Your task to perform on an android device: turn vacation reply on in the gmail app Image 0: 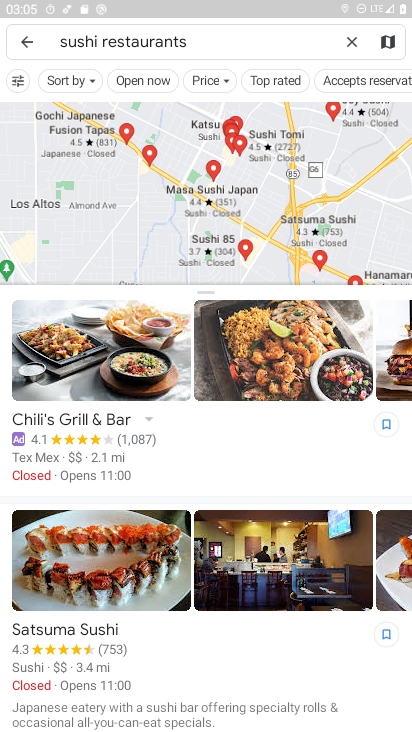
Step 0: press home button
Your task to perform on an android device: turn vacation reply on in the gmail app Image 1: 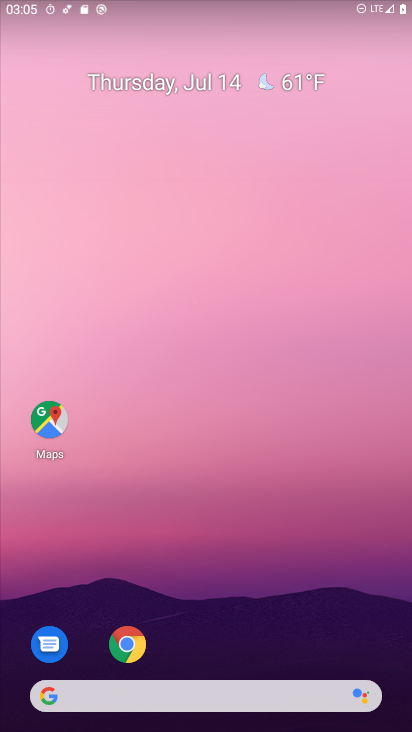
Step 1: drag from (193, 193) to (177, 156)
Your task to perform on an android device: turn vacation reply on in the gmail app Image 2: 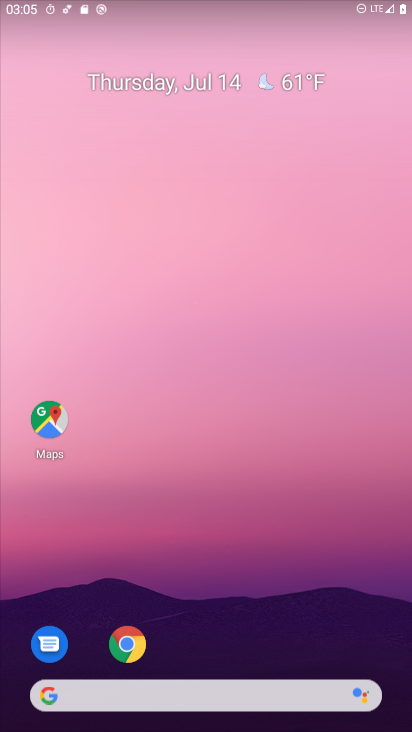
Step 2: drag from (289, 580) to (282, 52)
Your task to perform on an android device: turn vacation reply on in the gmail app Image 3: 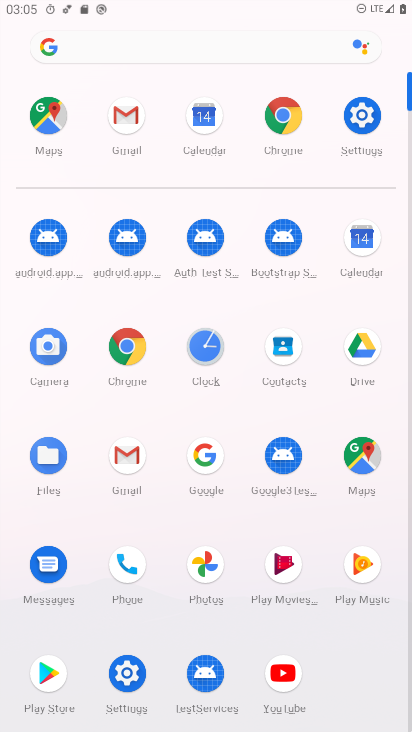
Step 3: click (119, 114)
Your task to perform on an android device: turn vacation reply on in the gmail app Image 4: 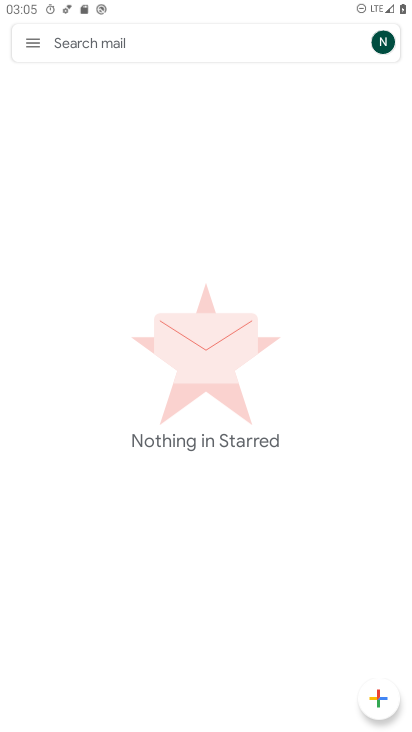
Step 4: click (24, 44)
Your task to perform on an android device: turn vacation reply on in the gmail app Image 5: 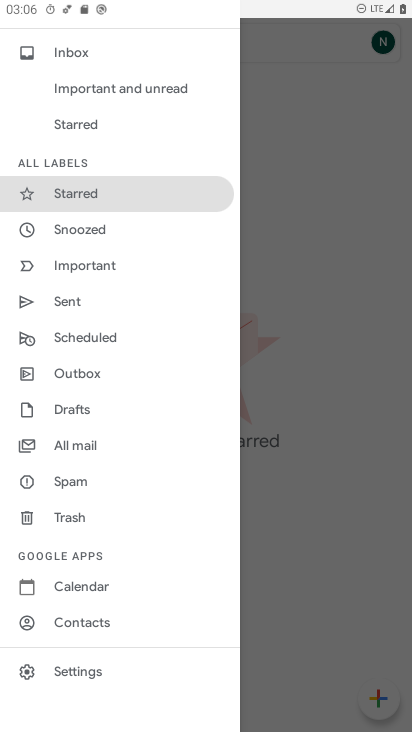
Step 5: click (90, 674)
Your task to perform on an android device: turn vacation reply on in the gmail app Image 6: 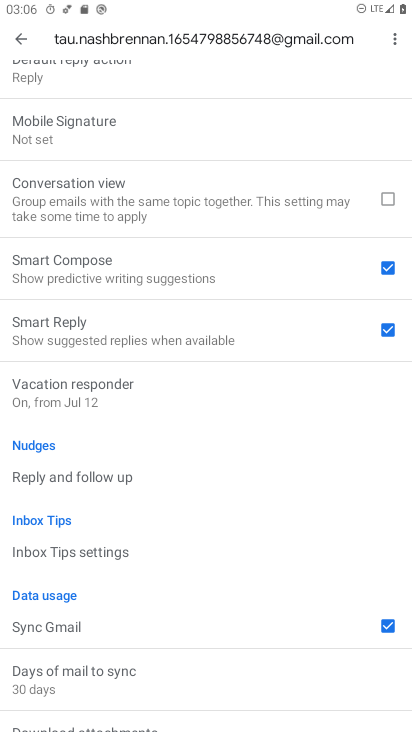
Step 6: drag from (202, 115) to (237, 593)
Your task to perform on an android device: turn vacation reply on in the gmail app Image 7: 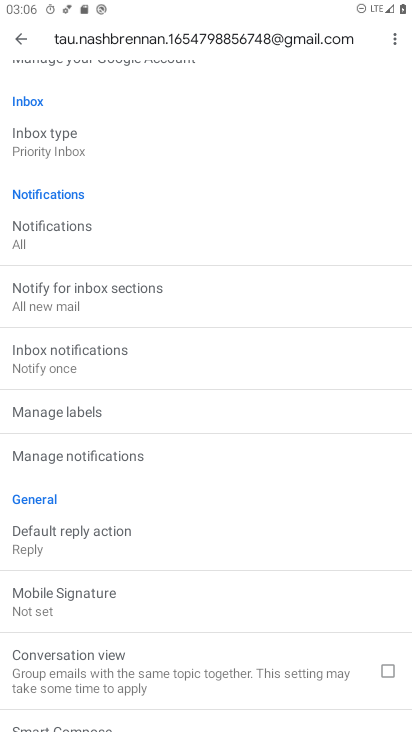
Step 7: drag from (232, 600) to (249, 110)
Your task to perform on an android device: turn vacation reply on in the gmail app Image 8: 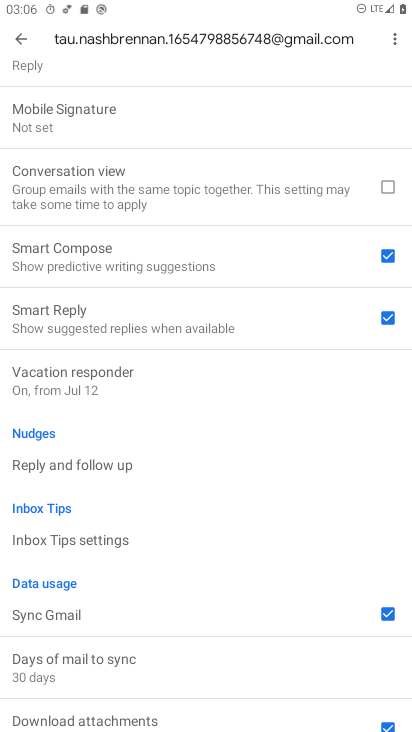
Step 8: click (107, 389)
Your task to perform on an android device: turn vacation reply on in the gmail app Image 9: 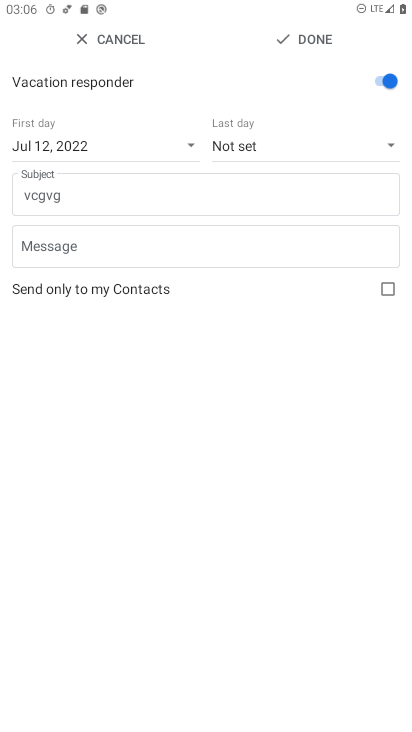
Step 9: task complete